Your task to perform on an android device: turn on the 24-hour format for clock Image 0: 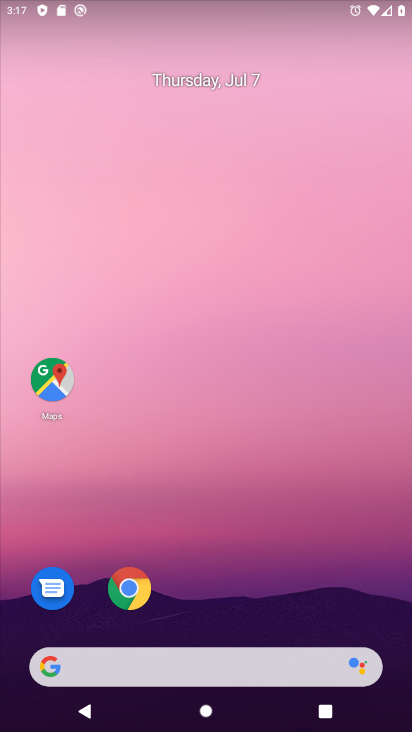
Step 0: drag from (220, 640) to (229, 321)
Your task to perform on an android device: turn on the 24-hour format for clock Image 1: 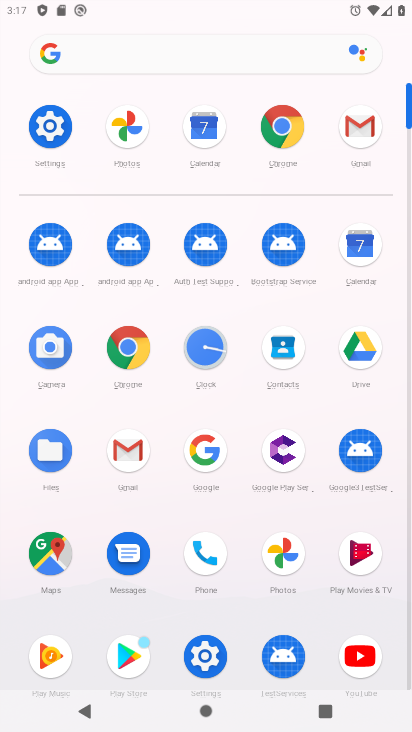
Step 1: click (196, 357)
Your task to perform on an android device: turn on the 24-hour format for clock Image 2: 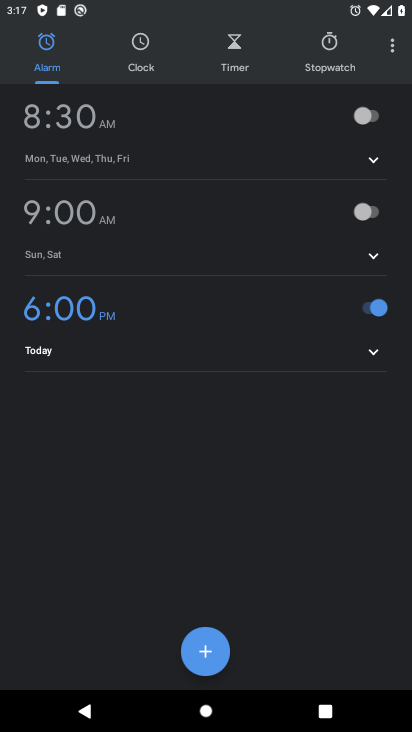
Step 2: click (390, 60)
Your task to perform on an android device: turn on the 24-hour format for clock Image 3: 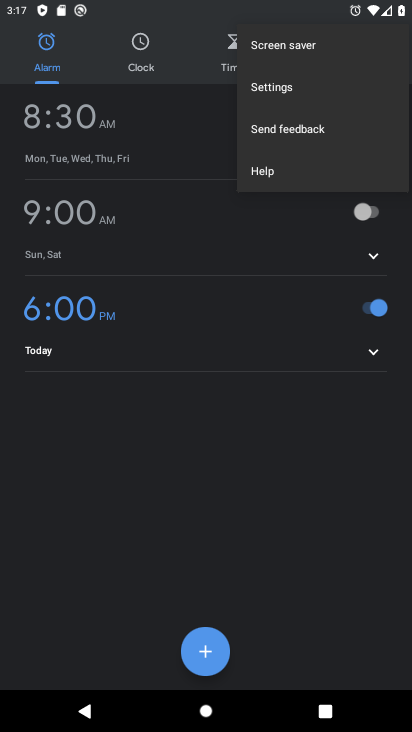
Step 3: click (275, 95)
Your task to perform on an android device: turn on the 24-hour format for clock Image 4: 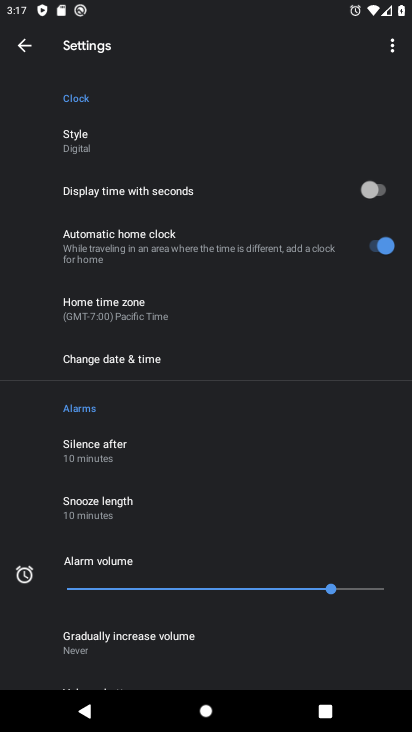
Step 4: drag from (121, 665) to (108, 294)
Your task to perform on an android device: turn on the 24-hour format for clock Image 5: 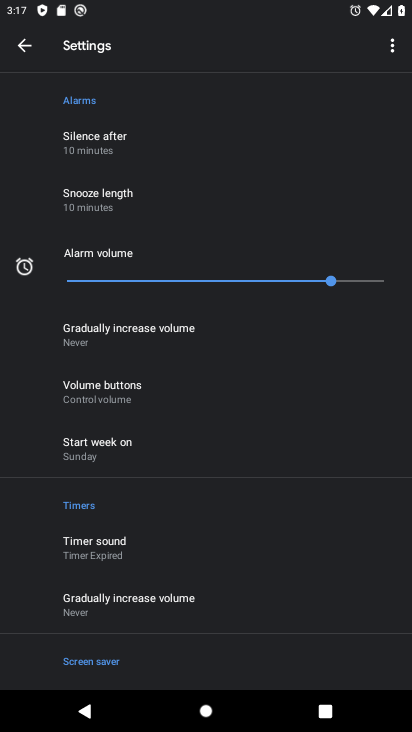
Step 5: drag from (147, 146) to (179, 583)
Your task to perform on an android device: turn on the 24-hour format for clock Image 6: 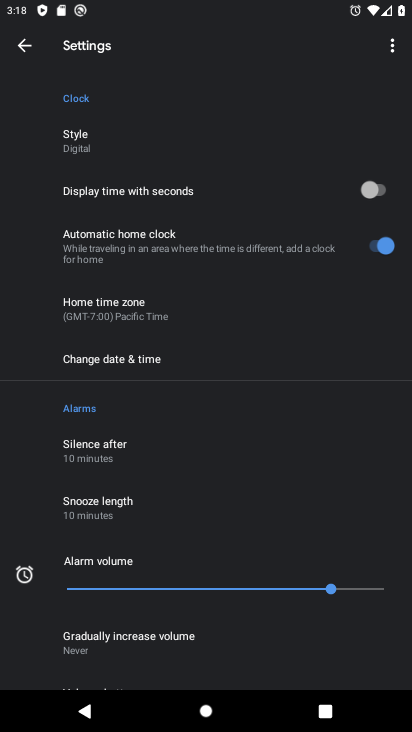
Step 6: click (113, 362)
Your task to perform on an android device: turn on the 24-hour format for clock Image 7: 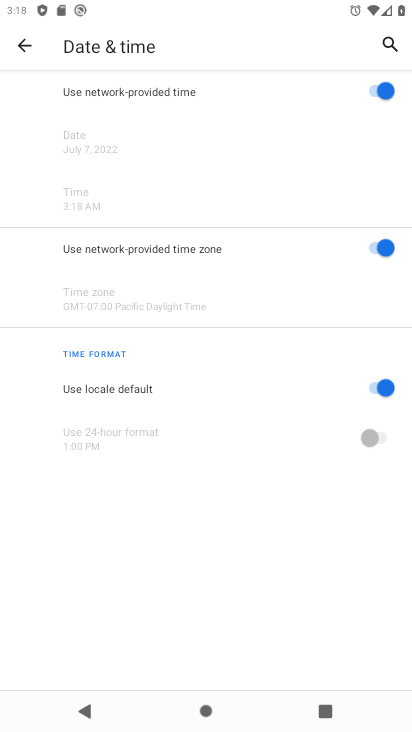
Step 7: click (127, 443)
Your task to perform on an android device: turn on the 24-hour format for clock Image 8: 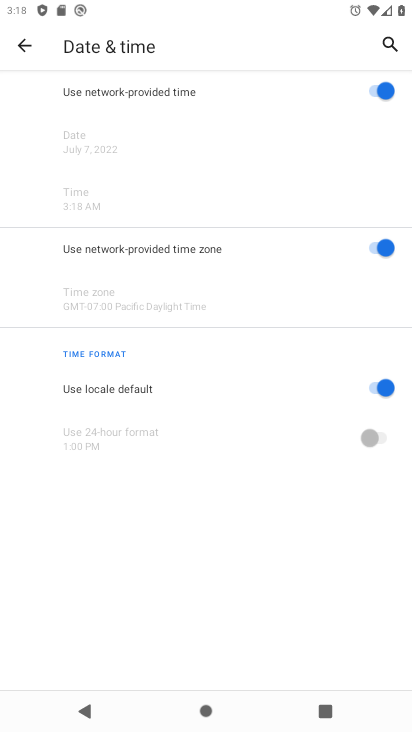
Step 8: click (377, 385)
Your task to perform on an android device: turn on the 24-hour format for clock Image 9: 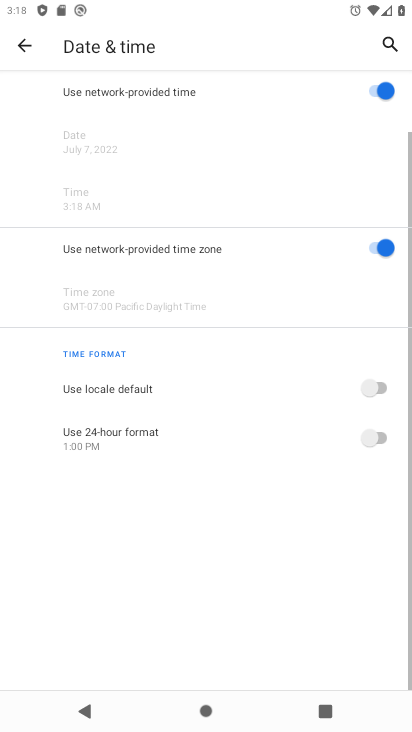
Step 9: click (379, 436)
Your task to perform on an android device: turn on the 24-hour format for clock Image 10: 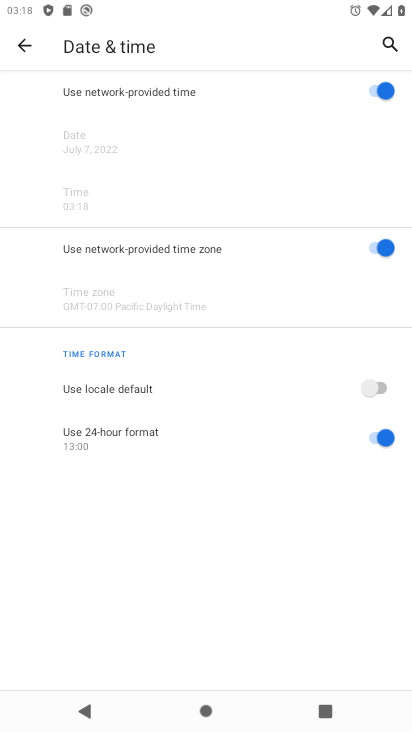
Step 10: task complete